Your task to perform on an android device: What's a good restaurant in Portland? Image 0: 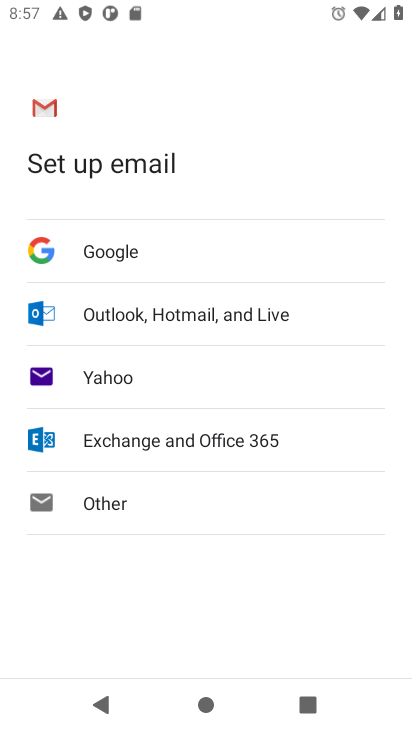
Step 0: press home button
Your task to perform on an android device: What's a good restaurant in Portland? Image 1: 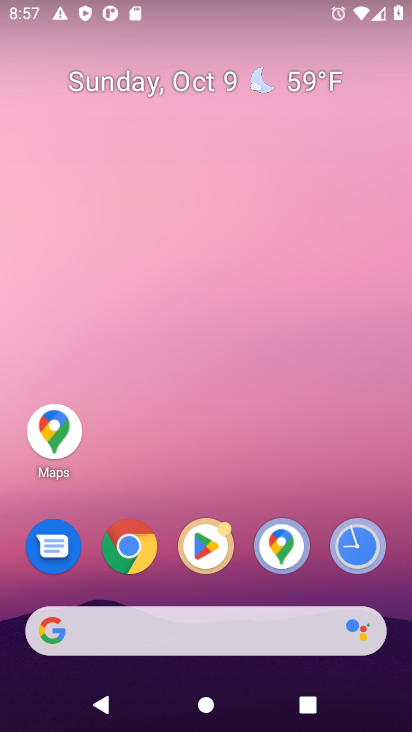
Step 1: click (126, 544)
Your task to perform on an android device: What's a good restaurant in Portland? Image 2: 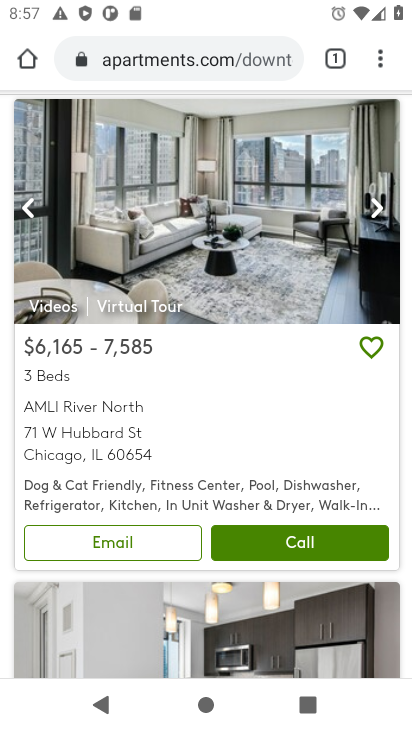
Step 2: click (192, 53)
Your task to perform on an android device: What's a good restaurant in Portland? Image 3: 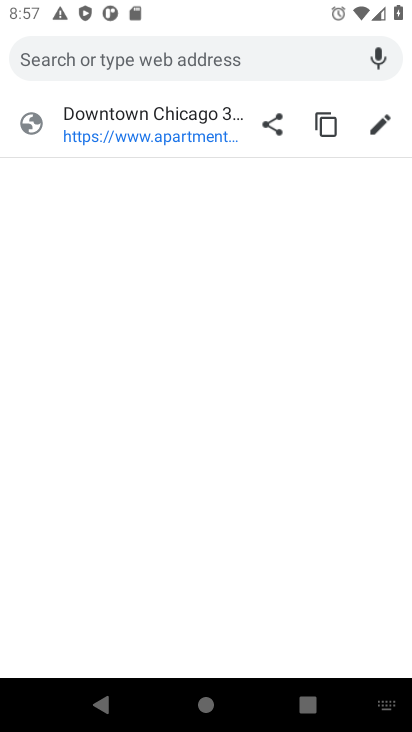
Step 3: type "good restaurant in poland"
Your task to perform on an android device: What's a good restaurant in Portland? Image 4: 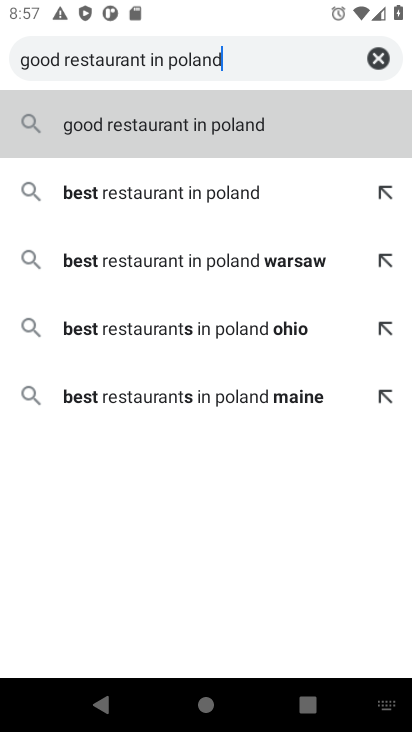
Step 4: type ""
Your task to perform on an android device: What's a good restaurant in Portland? Image 5: 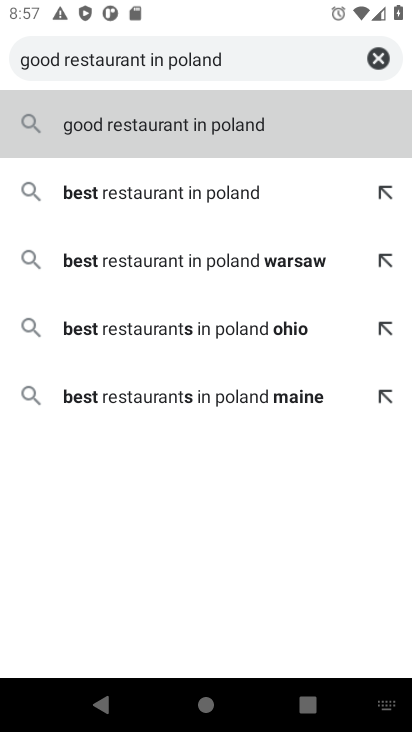
Step 5: press enter
Your task to perform on an android device: What's a good restaurant in Portland? Image 6: 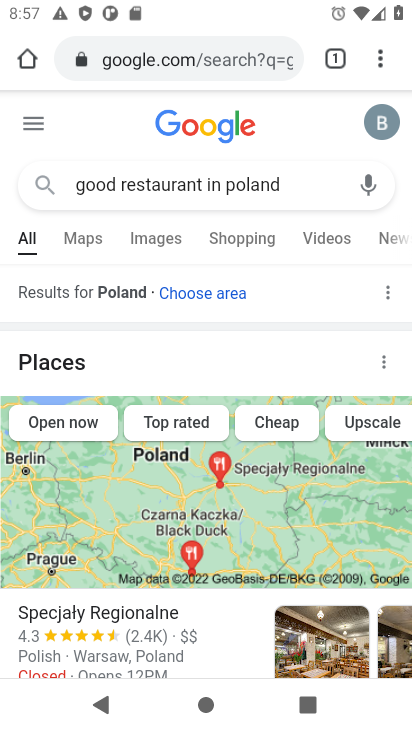
Step 6: drag from (223, 530) to (232, 219)
Your task to perform on an android device: What's a good restaurant in Portland? Image 7: 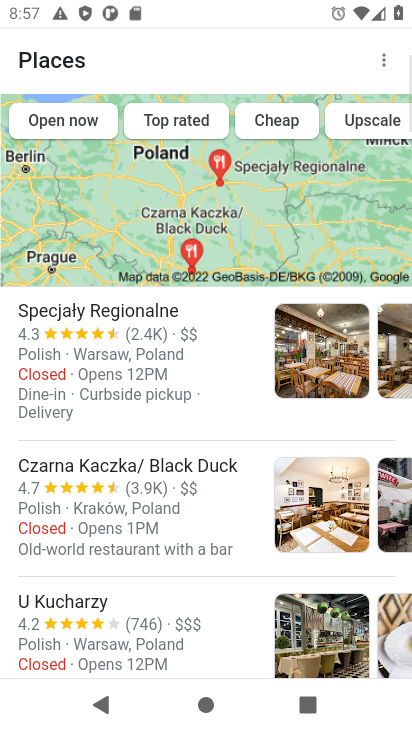
Step 7: drag from (226, 597) to (252, 326)
Your task to perform on an android device: What's a good restaurant in Portland? Image 8: 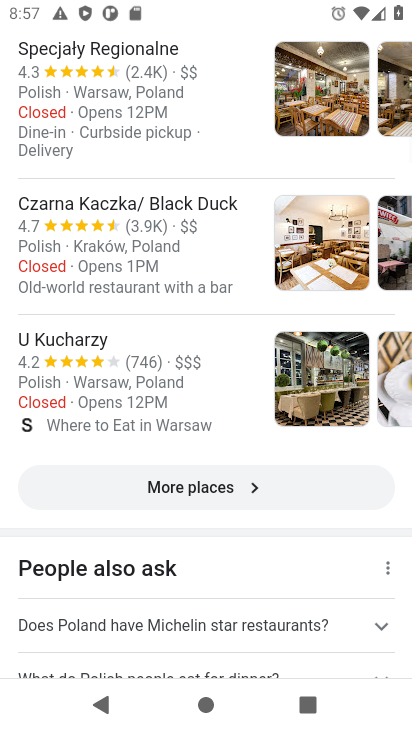
Step 8: click (233, 565)
Your task to perform on an android device: What's a good restaurant in Portland? Image 9: 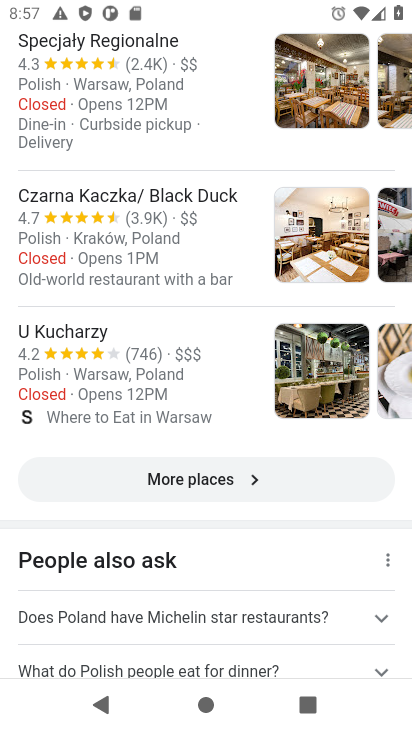
Step 9: click (250, 487)
Your task to perform on an android device: What's a good restaurant in Portland? Image 10: 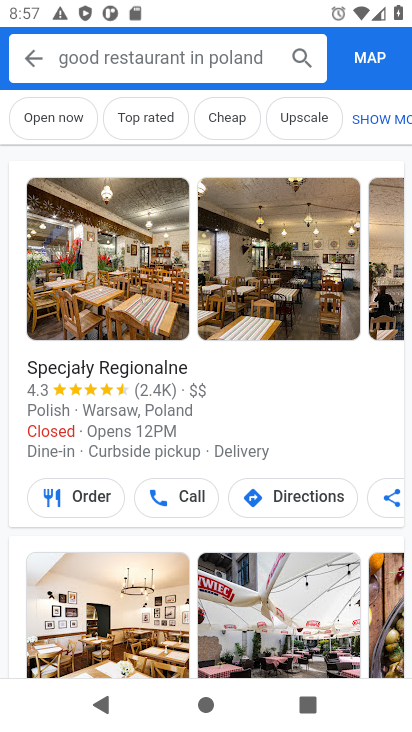
Step 10: task complete